Your task to perform on an android device: open app "Google Drive" Image 0: 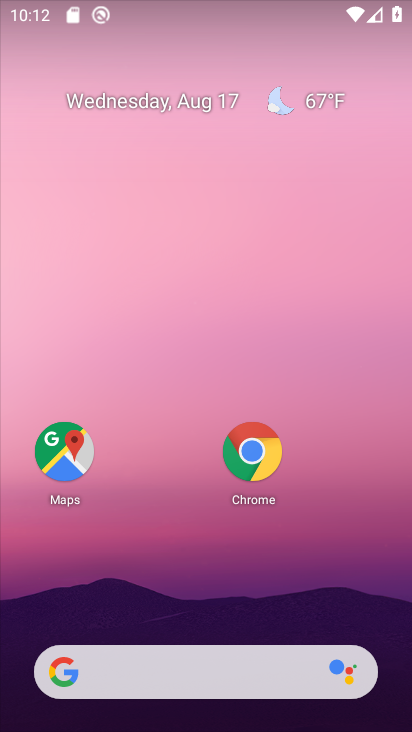
Step 0: drag from (203, 571) to (212, 36)
Your task to perform on an android device: open app "Google Drive" Image 1: 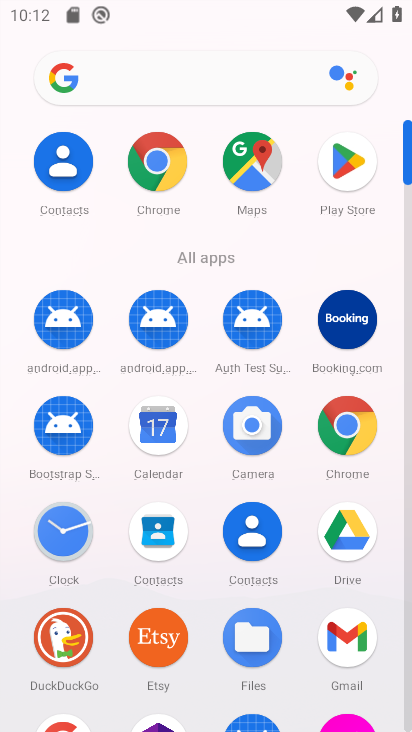
Step 1: click (351, 170)
Your task to perform on an android device: open app "Google Drive" Image 2: 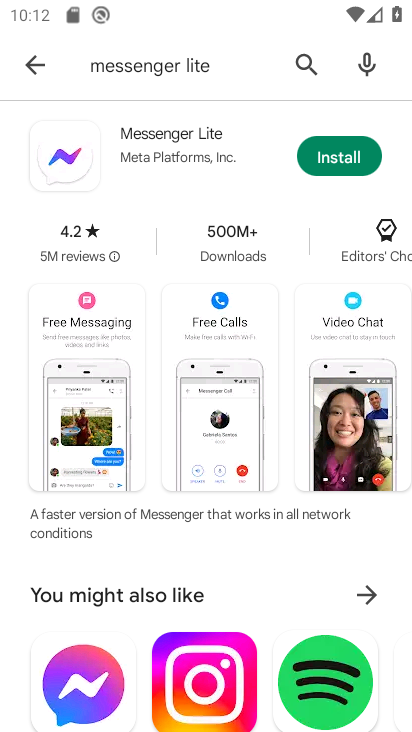
Step 2: click (35, 65)
Your task to perform on an android device: open app "Google Drive" Image 3: 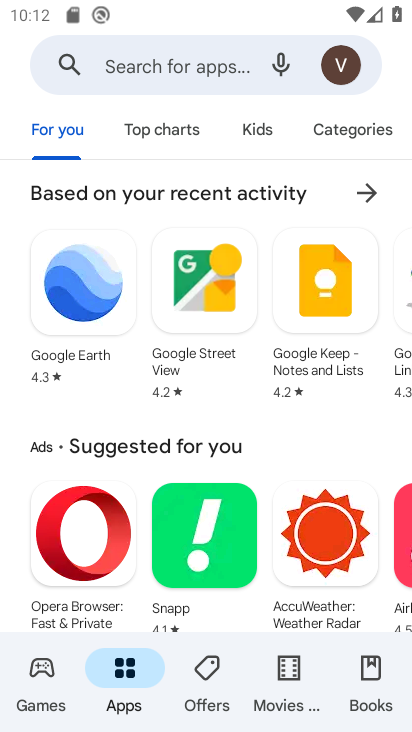
Step 3: click (178, 63)
Your task to perform on an android device: open app "Google Drive" Image 4: 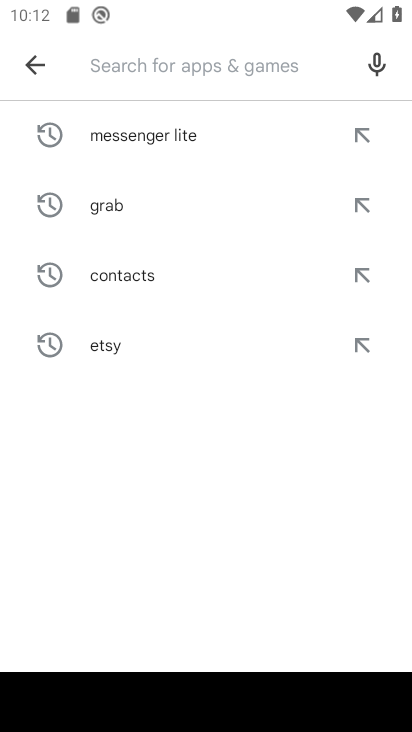
Step 4: type "Google Drive"
Your task to perform on an android device: open app "Google Drive" Image 5: 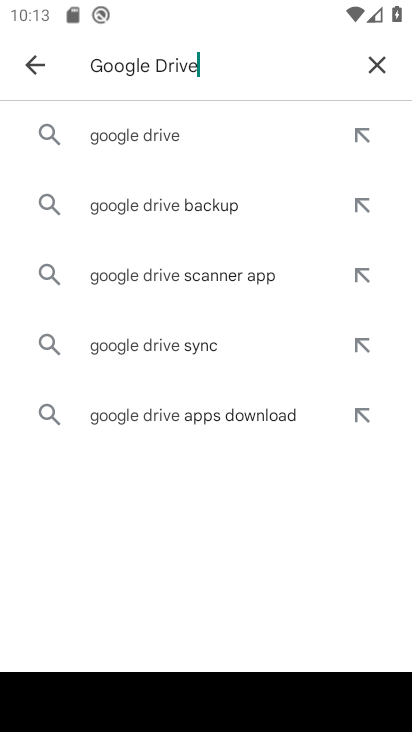
Step 5: click (106, 129)
Your task to perform on an android device: open app "Google Drive" Image 6: 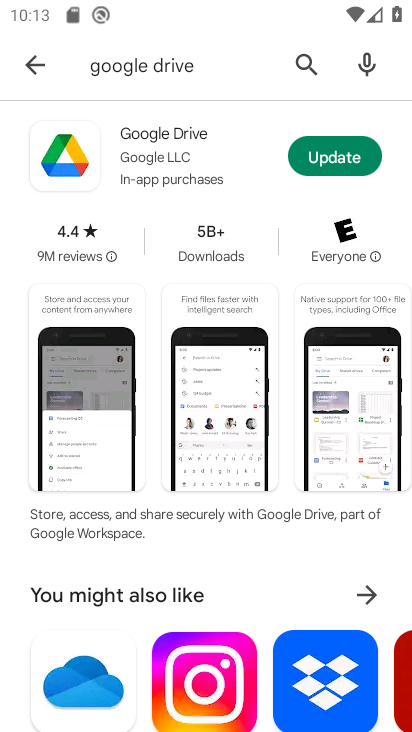
Step 6: click (313, 166)
Your task to perform on an android device: open app "Google Drive" Image 7: 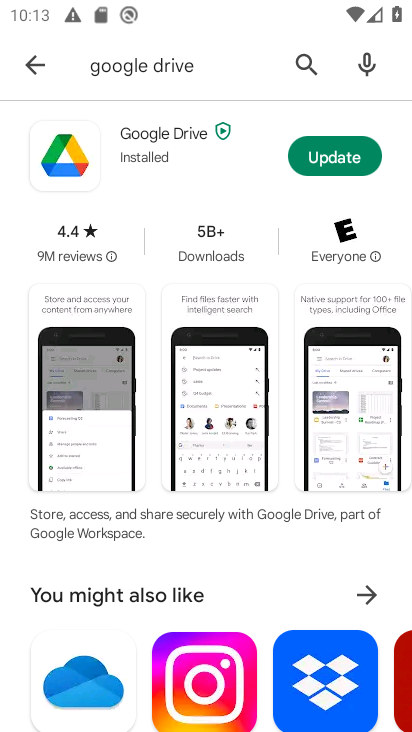
Step 7: click (162, 149)
Your task to perform on an android device: open app "Google Drive" Image 8: 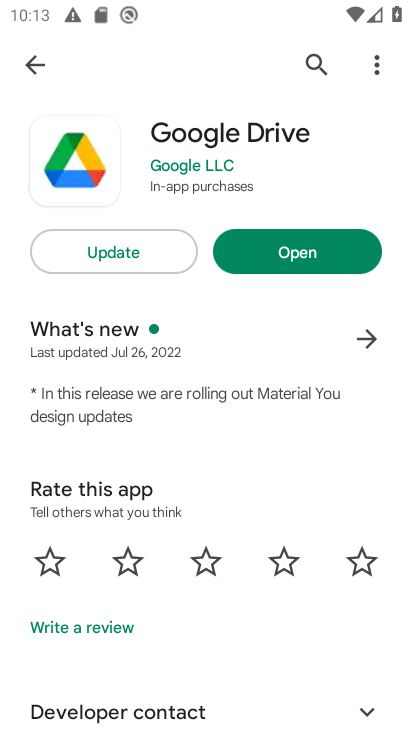
Step 8: click (255, 236)
Your task to perform on an android device: open app "Google Drive" Image 9: 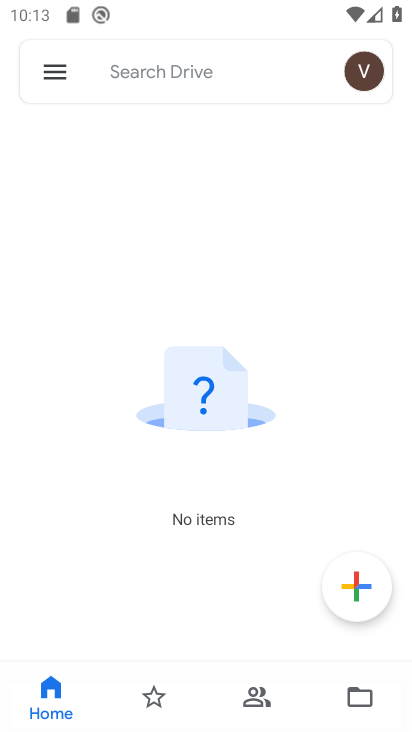
Step 9: task complete